Your task to perform on an android device: check battery use Image 0: 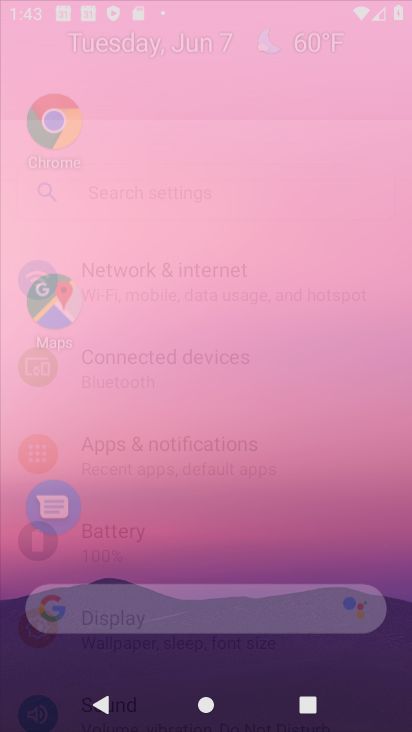
Step 0: drag from (180, 504) to (214, 169)
Your task to perform on an android device: check battery use Image 1: 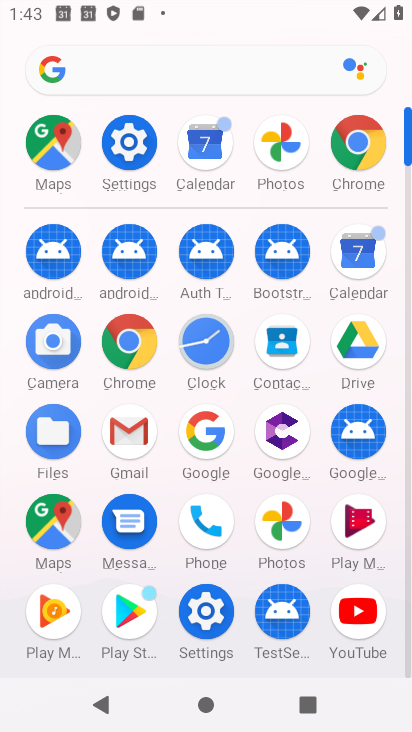
Step 1: click (115, 153)
Your task to perform on an android device: check battery use Image 2: 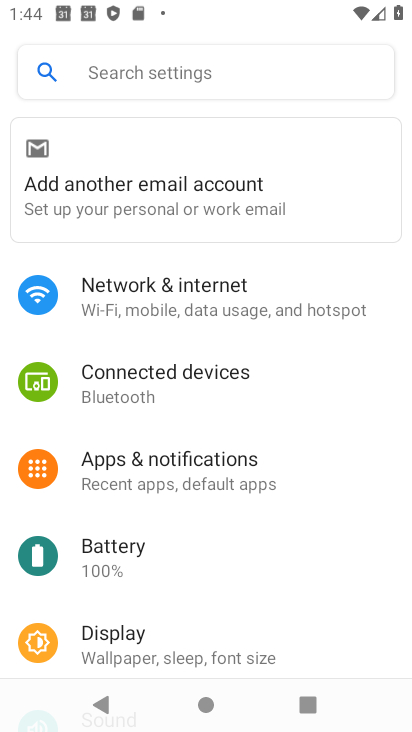
Step 2: click (100, 563)
Your task to perform on an android device: check battery use Image 3: 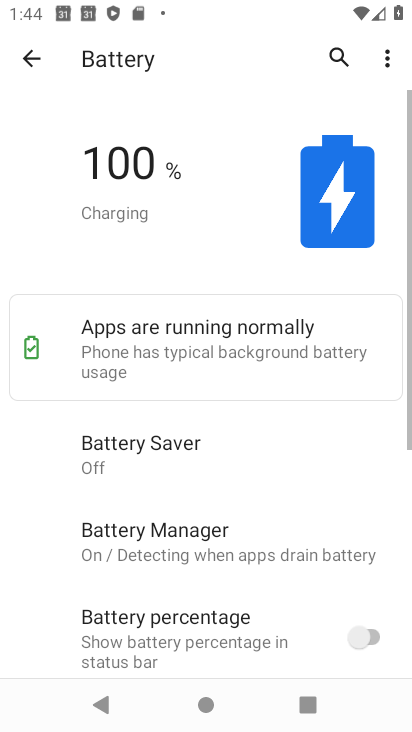
Step 3: click (388, 73)
Your task to perform on an android device: check battery use Image 4: 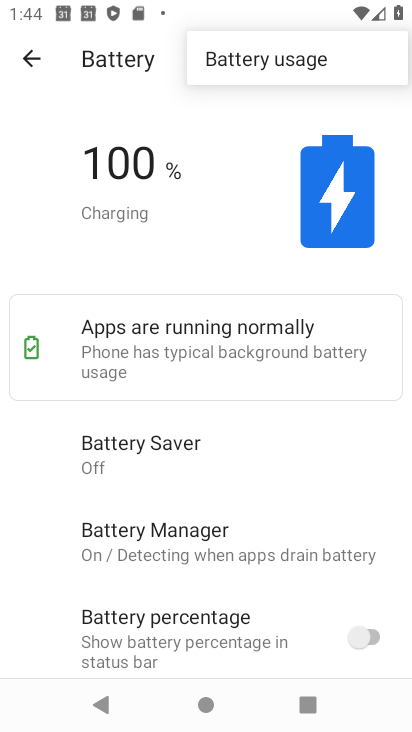
Step 4: click (268, 66)
Your task to perform on an android device: check battery use Image 5: 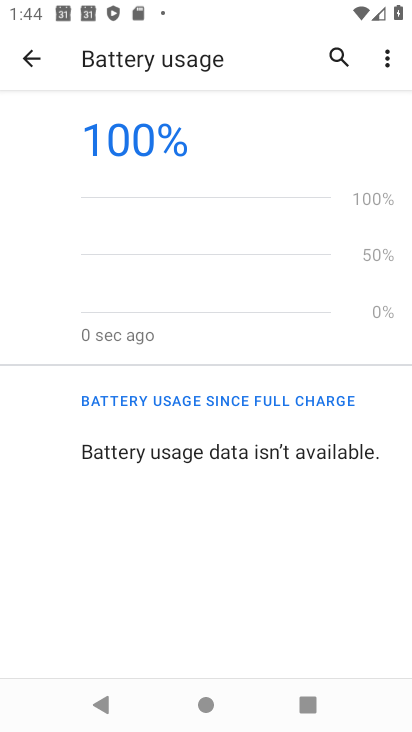
Step 5: task complete